Your task to perform on an android device: Go to location settings Image 0: 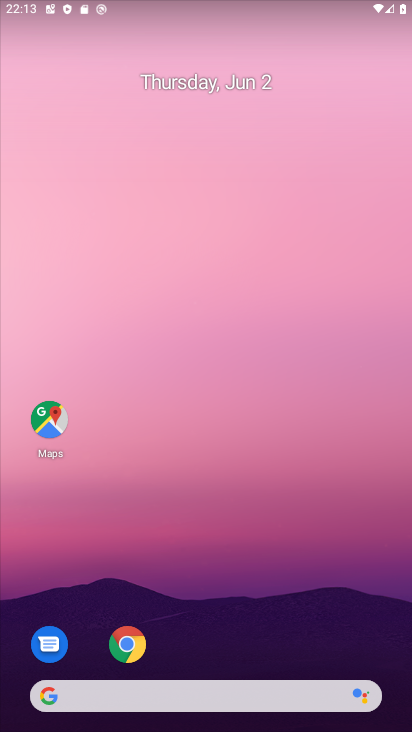
Step 0: drag from (186, 633) to (186, 157)
Your task to perform on an android device: Go to location settings Image 1: 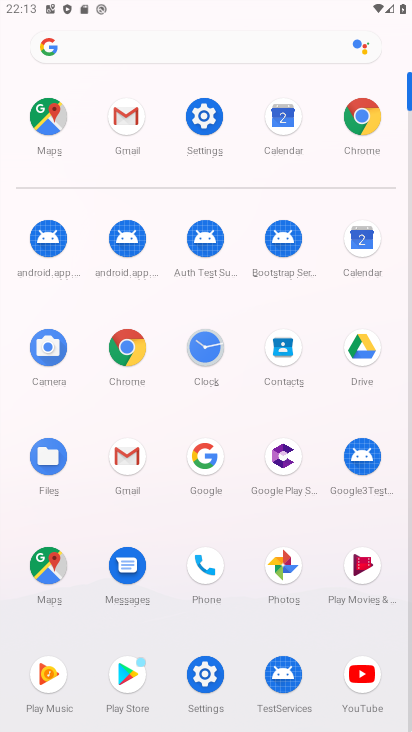
Step 1: click (212, 143)
Your task to perform on an android device: Go to location settings Image 2: 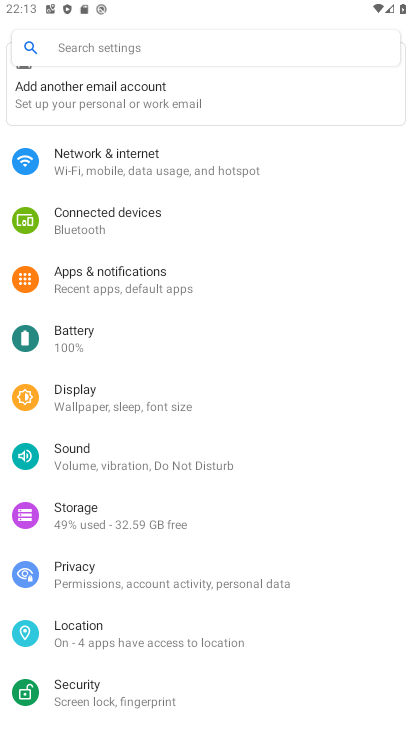
Step 2: click (77, 624)
Your task to perform on an android device: Go to location settings Image 3: 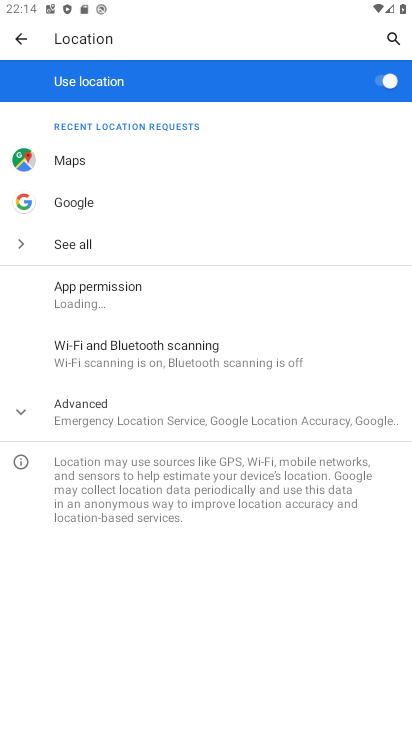
Step 3: task complete